Your task to perform on an android device: Go to Google Image 0: 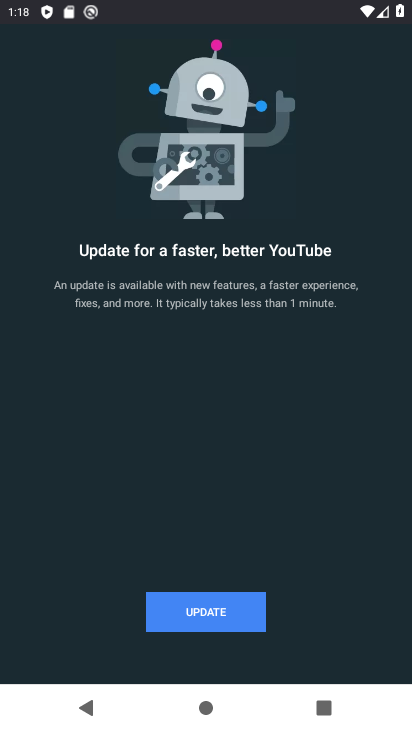
Step 0: press home button
Your task to perform on an android device: Go to Google Image 1: 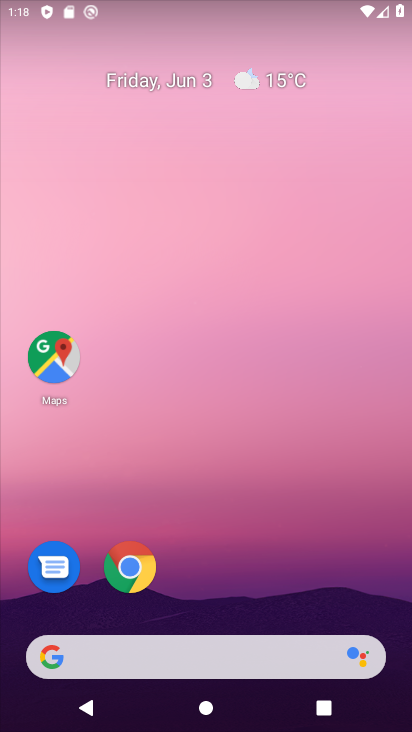
Step 1: drag from (242, 596) to (238, 41)
Your task to perform on an android device: Go to Google Image 2: 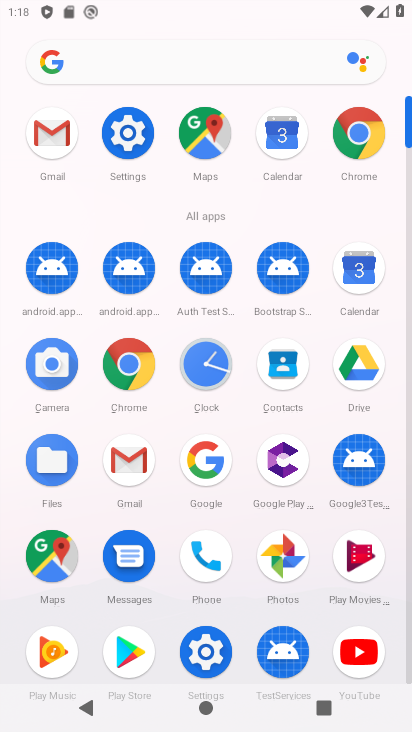
Step 2: click (213, 462)
Your task to perform on an android device: Go to Google Image 3: 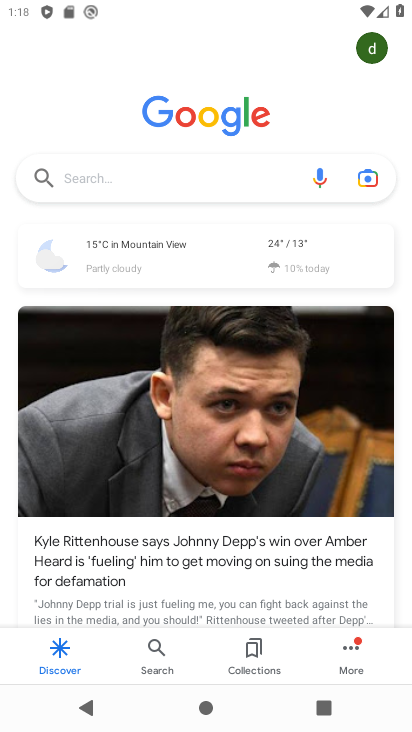
Step 3: task complete